Your task to perform on an android device: toggle pop-ups in chrome Image 0: 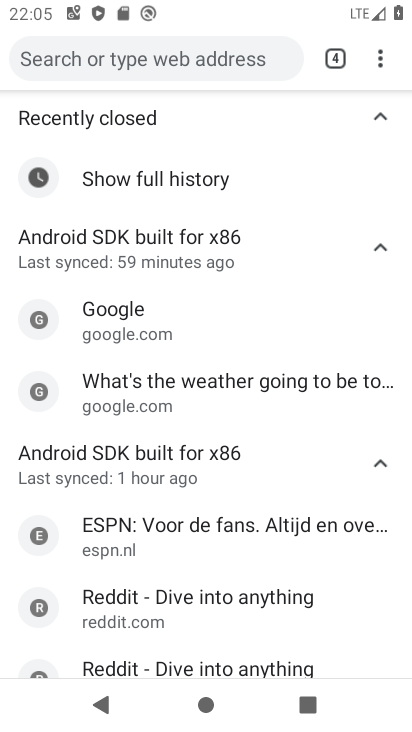
Step 0: task complete